Your task to perform on an android device: Go to wifi settings Image 0: 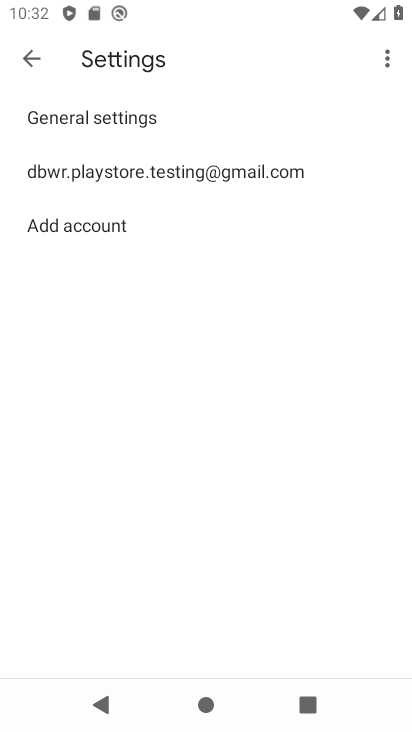
Step 0: press home button
Your task to perform on an android device: Go to wifi settings Image 1: 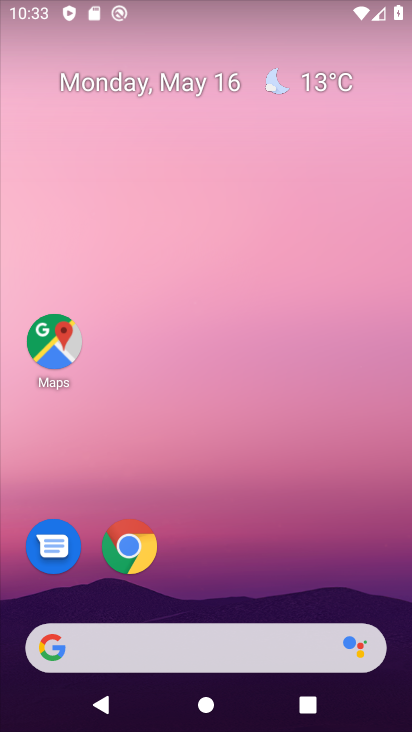
Step 1: drag from (255, 532) to (286, 2)
Your task to perform on an android device: Go to wifi settings Image 2: 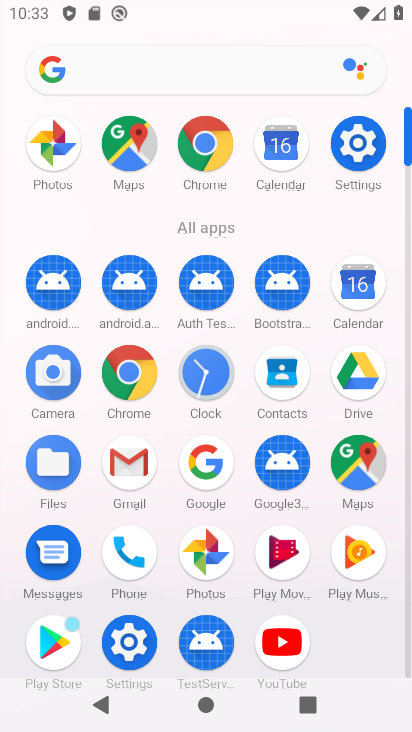
Step 2: click (345, 207)
Your task to perform on an android device: Go to wifi settings Image 3: 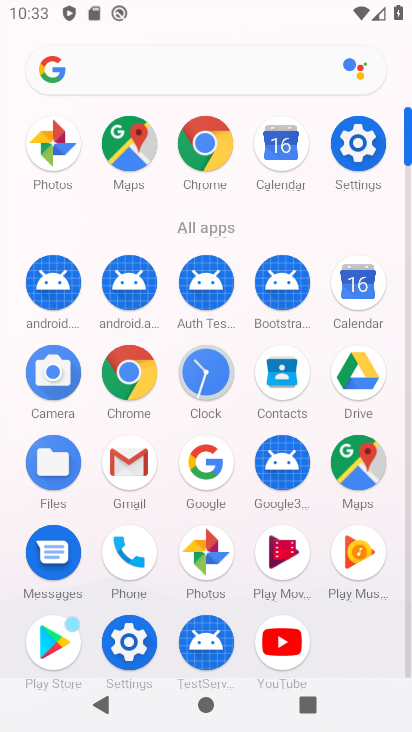
Step 3: click (348, 145)
Your task to perform on an android device: Go to wifi settings Image 4: 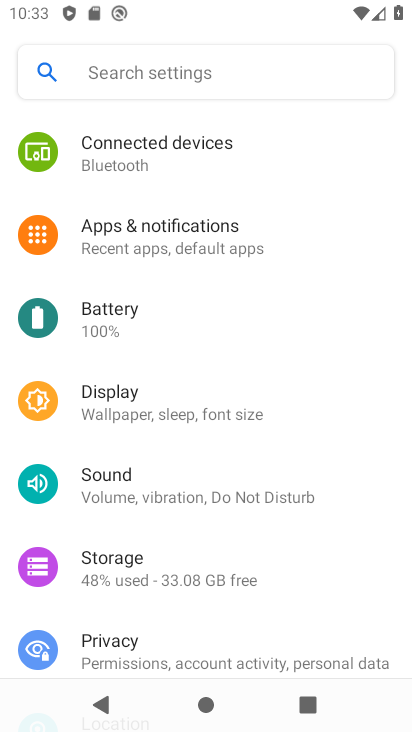
Step 4: drag from (136, 240) to (120, 639)
Your task to perform on an android device: Go to wifi settings Image 5: 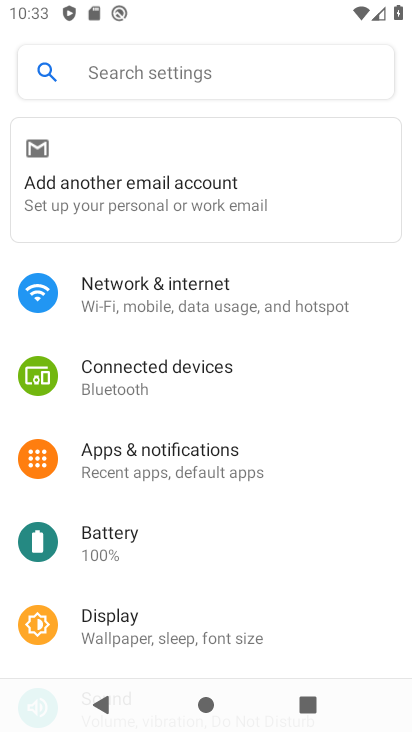
Step 5: click (190, 290)
Your task to perform on an android device: Go to wifi settings Image 6: 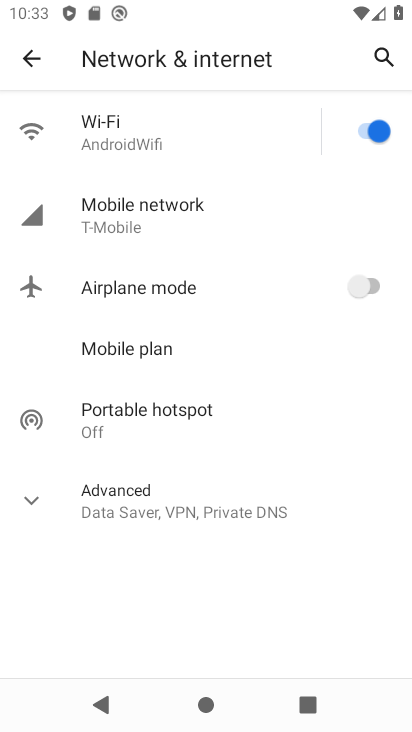
Step 6: click (137, 134)
Your task to perform on an android device: Go to wifi settings Image 7: 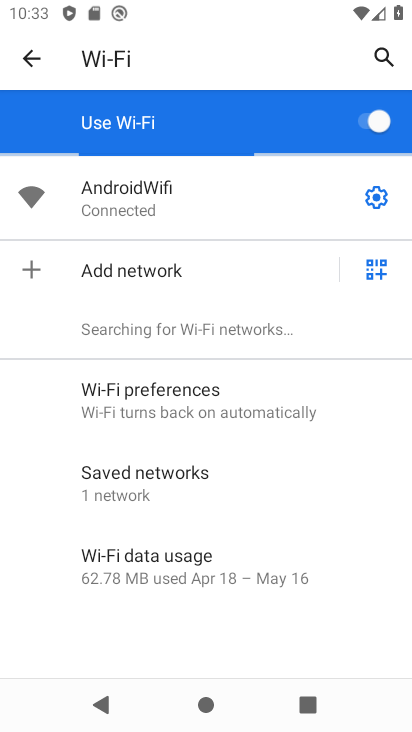
Step 7: task complete